Your task to perform on an android device: Go to settings Image 0: 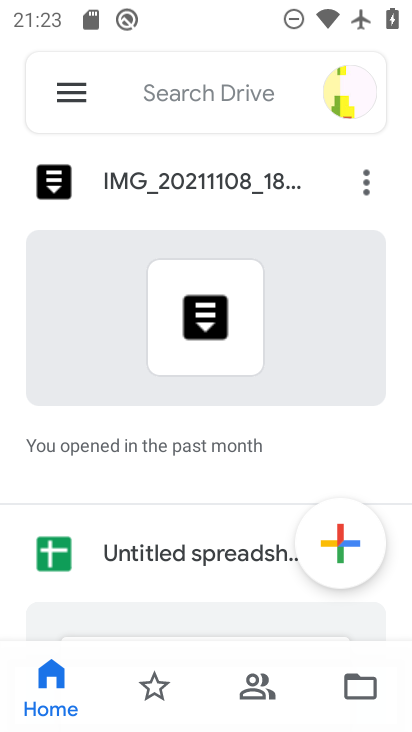
Step 0: press home button
Your task to perform on an android device: Go to settings Image 1: 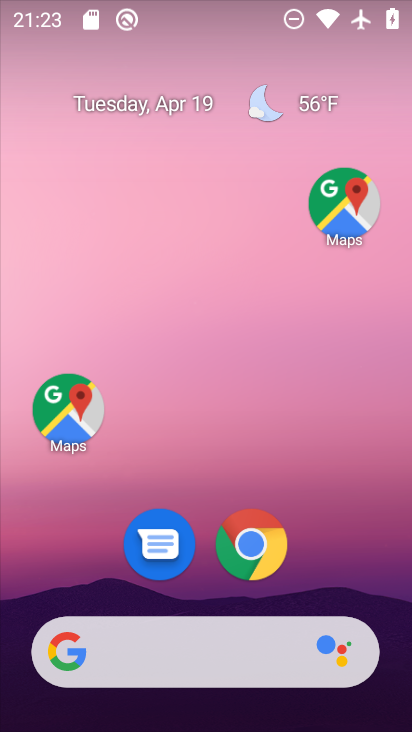
Step 1: drag from (218, 478) to (341, 65)
Your task to perform on an android device: Go to settings Image 2: 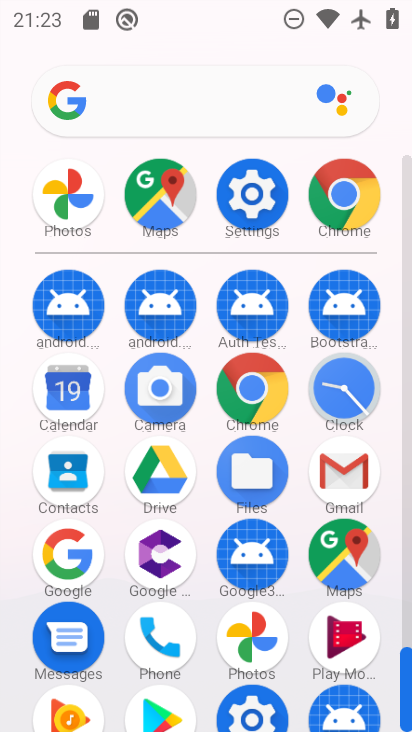
Step 2: click (248, 201)
Your task to perform on an android device: Go to settings Image 3: 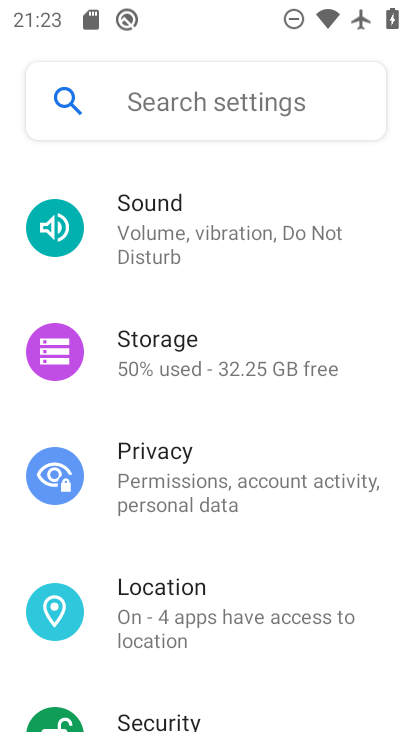
Step 3: task complete